Your task to perform on an android device: change notifications settings Image 0: 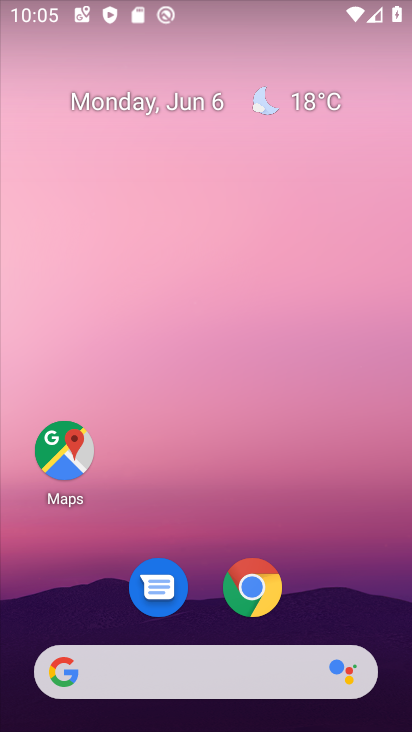
Step 0: drag from (352, 580) to (322, 75)
Your task to perform on an android device: change notifications settings Image 1: 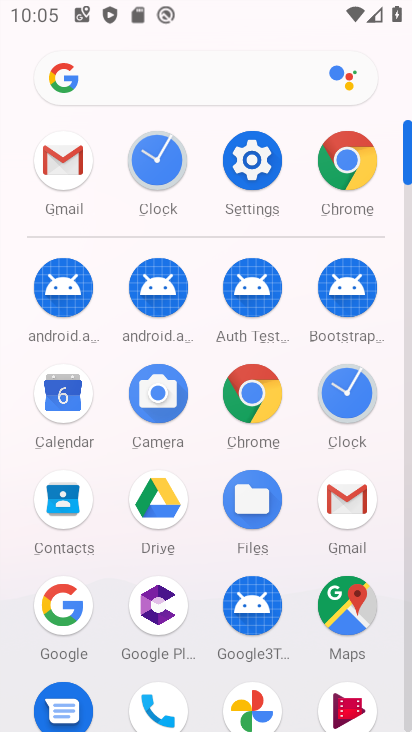
Step 1: click (273, 162)
Your task to perform on an android device: change notifications settings Image 2: 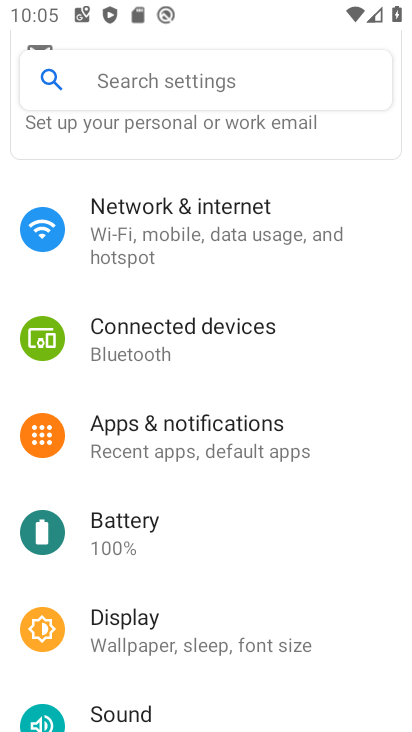
Step 2: click (248, 250)
Your task to perform on an android device: change notifications settings Image 3: 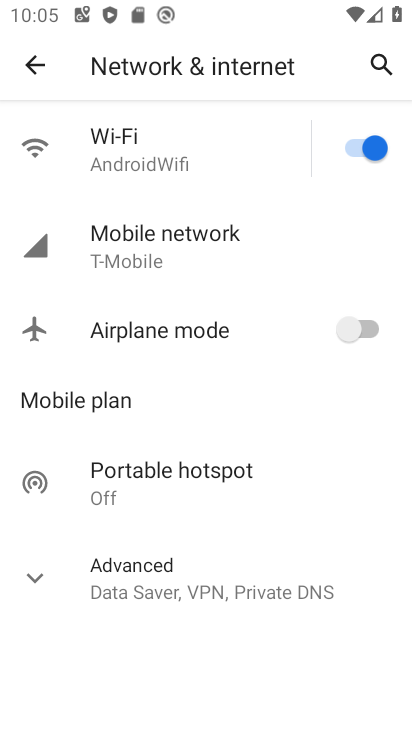
Step 3: press back button
Your task to perform on an android device: change notifications settings Image 4: 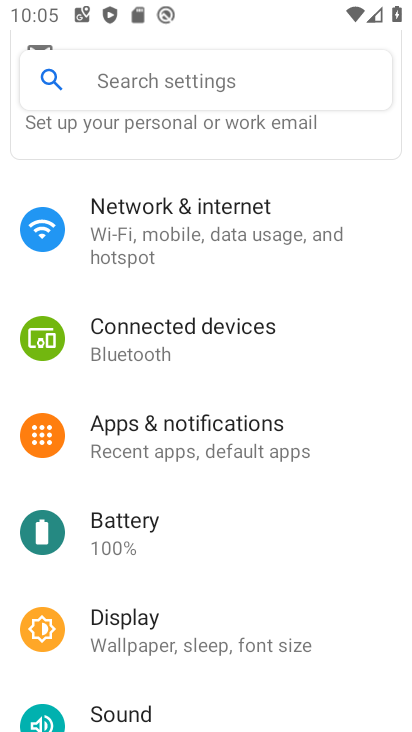
Step 4: click (249, 444)
Your task to perform on an android device: change notifications settings Image 5: 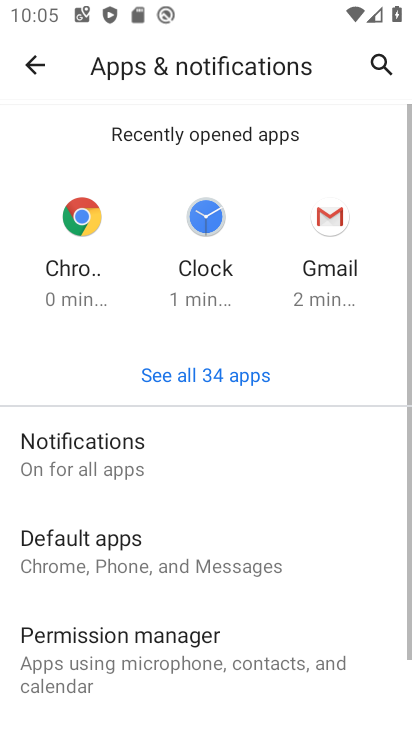
Step 5: click (226, 484)
Your task to perform on an android device: change notifications settings Image 6: 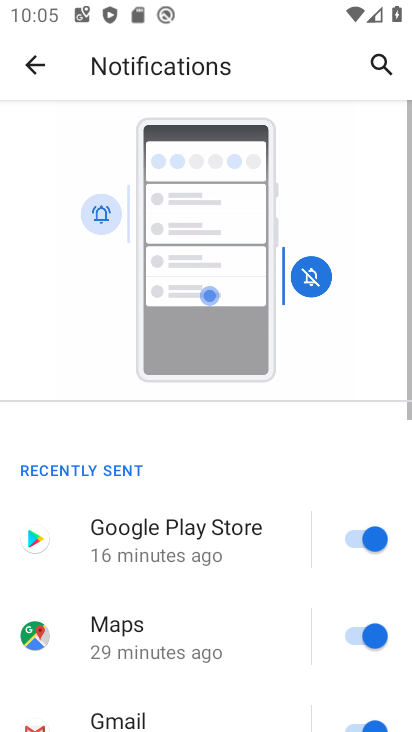
Step 6: drag from (204, 600) to (250, 147)
Your task to perform on an android device: change notifications settings Image 7: 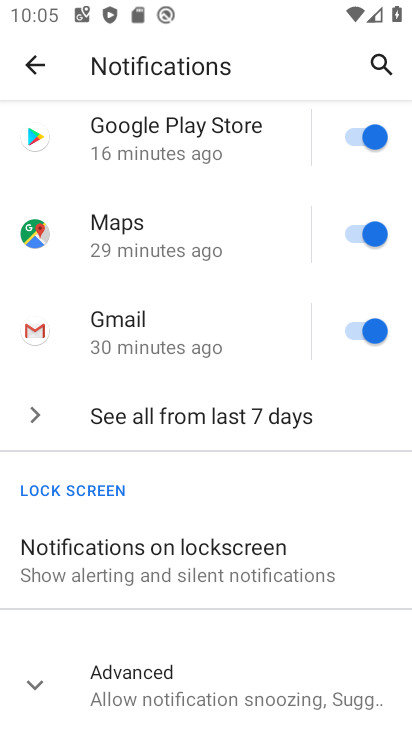
Step 7: click (123, 557)
Your task to perform on an android device: change notifications settings Image 8: 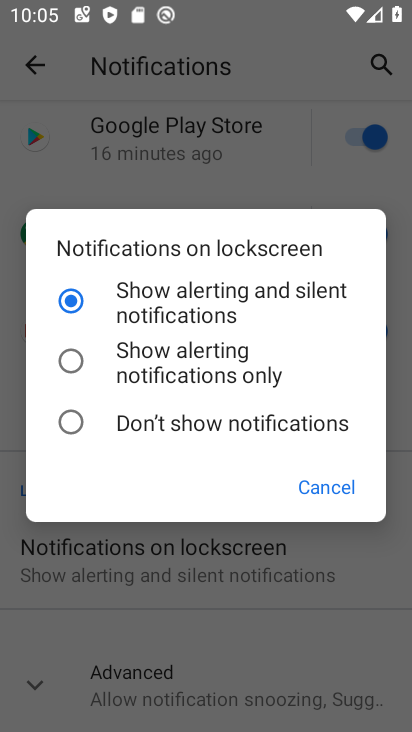
Step 8: click (337, 492)
Your task to perform on an android device: change notifications settings Image 9: 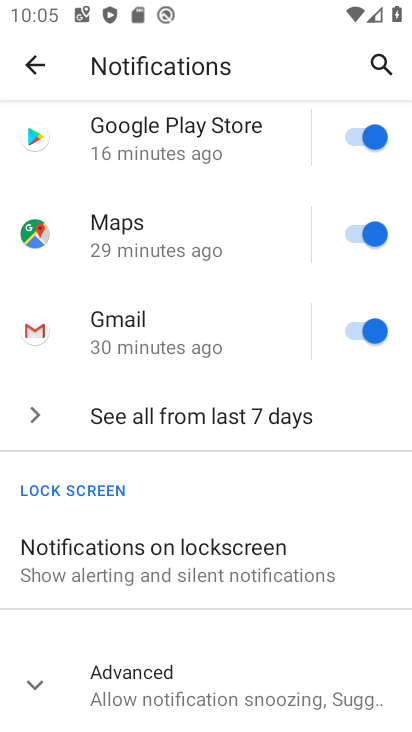
Step 9: click (288, 689)
Your task to perform on an android device: change notifications settings Image 10: 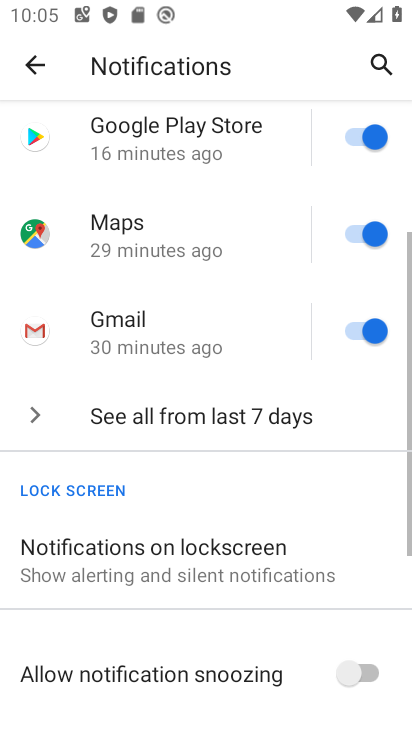
Step 10: drag from (283, 673) to (334, 121)
Your task to perform on an android device: change notifications settings Image 11: 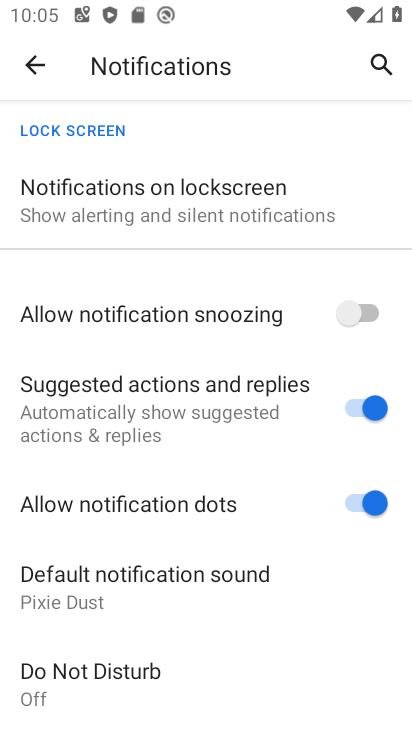
Step 11: click (299, 601)
Your task to perform on an android device: change notifications settings Image 12: 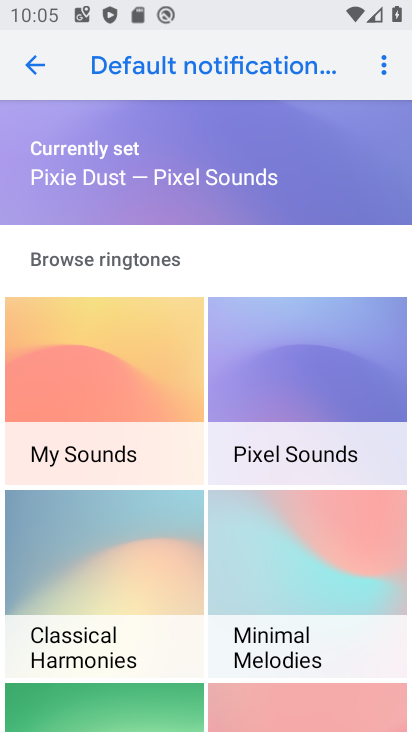
Step 12: task complete